Your task to perform on an android device: Open Amazon Image 0: 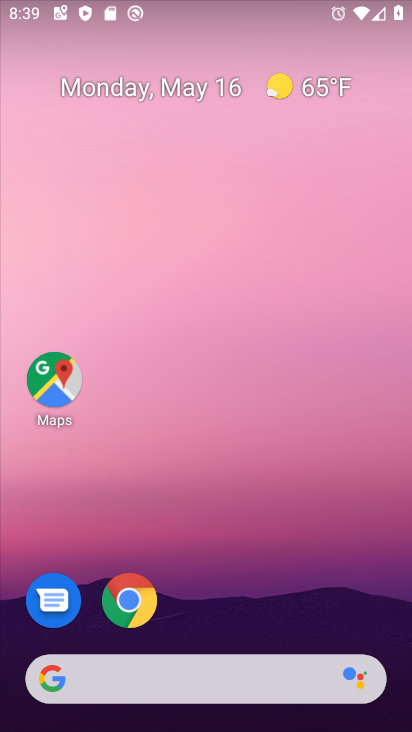
Step 0: drag from (198, 606) to (263, 62)
Your task to perform on an android device: Open Amazon Image 1: 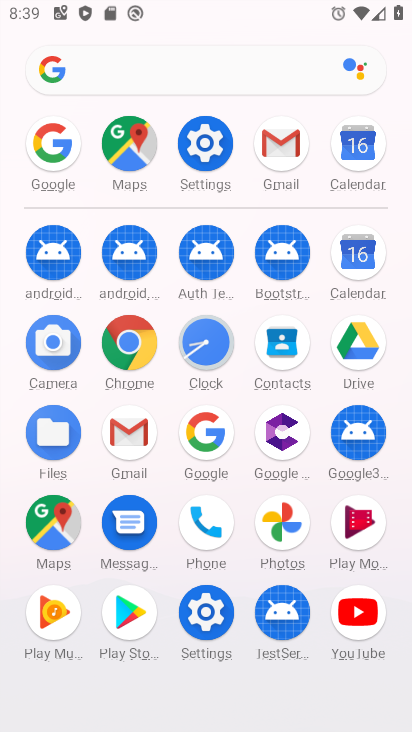
Step 1: click (199, 85)
Your task to perform on an android device: Open Amazon Image 2: 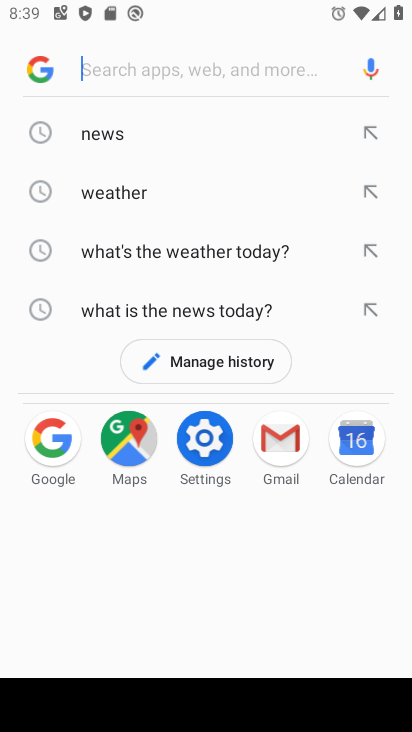
Step 2: type "amazon"
Your task to perform on an android device: Open Amazon Image 3: 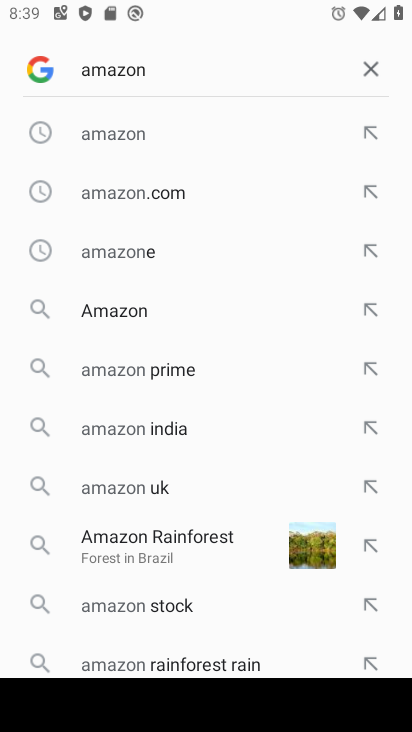
Step 3: click (149, 128)
Your task to perform on an android device: Open Amazon Image 4: 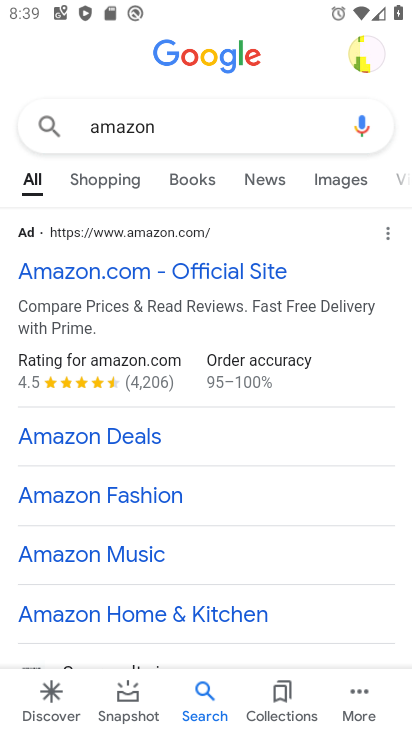
Step 4: drag from (273, 552) to (310, 608)
Your task to perform on an android device: Open Amazon Image 5: 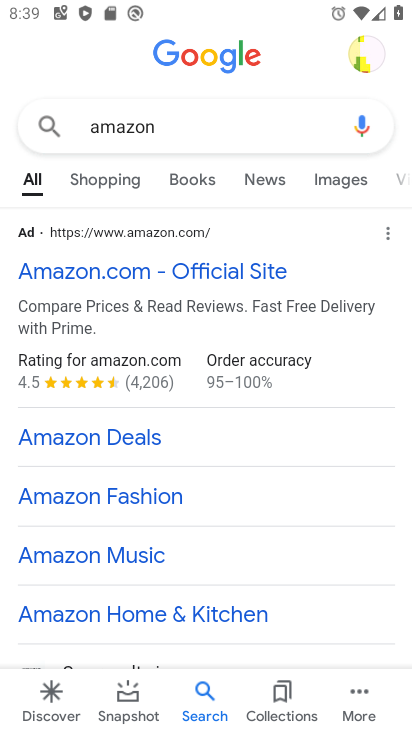
Step 5: click (150, 278)
Your task to perform on an android device: Open Amazon Image 6: 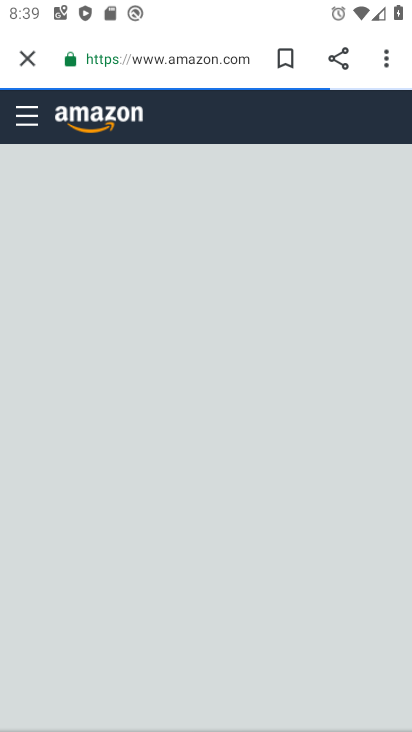
Step 6: task complete